Your task to perform on an android device: change your default location settings in chrome Image 0: 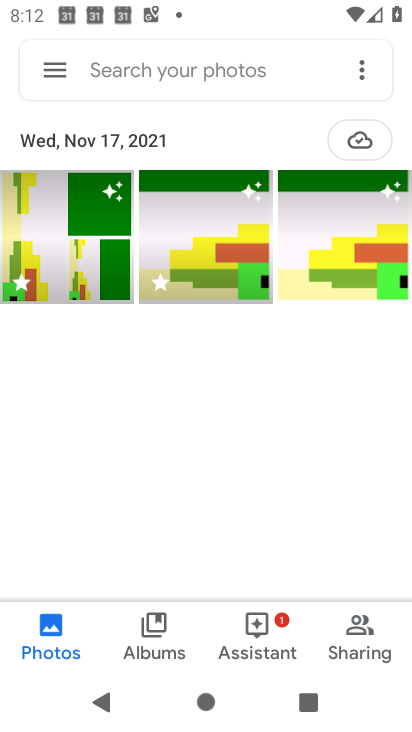
Step 0: press home button
Your task to perform on an android device: change your default location settings in chrome Image 1: 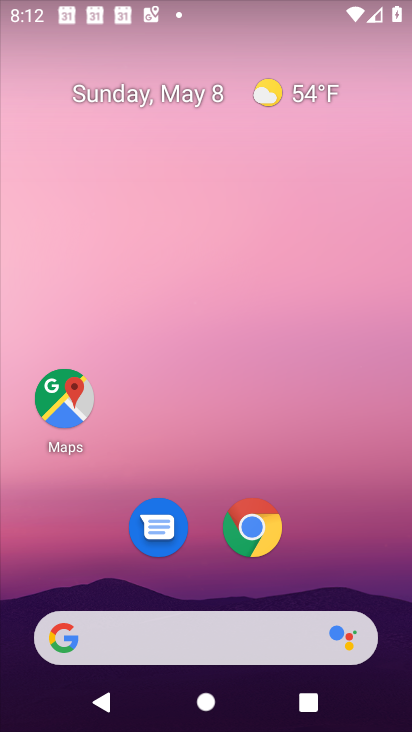
Step 1: click (243, 521)
Your task to perform on an android device: change your default location settings in chrome Image 2: 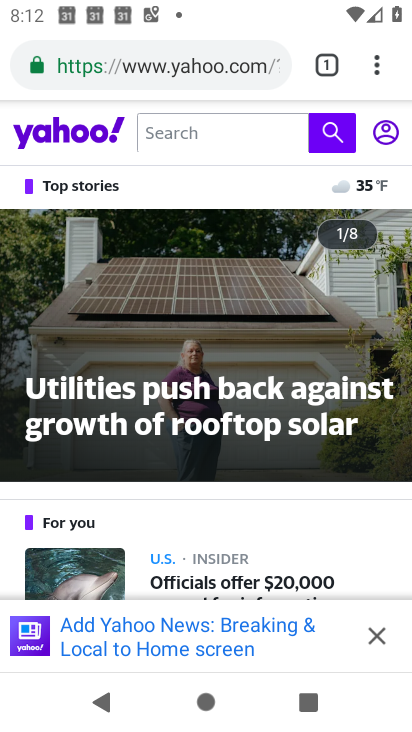
Step 2: click (369, 63)
Your task to perform on an android device: change your default location settings in chrome Image 3: 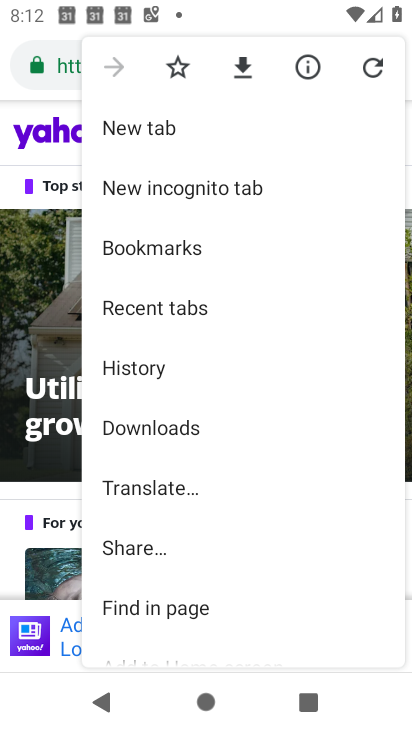
Step 3: drag from (247, 589) to (197, 328)
Your task to perform on an android device: change your default location settings in chrome Image 4: 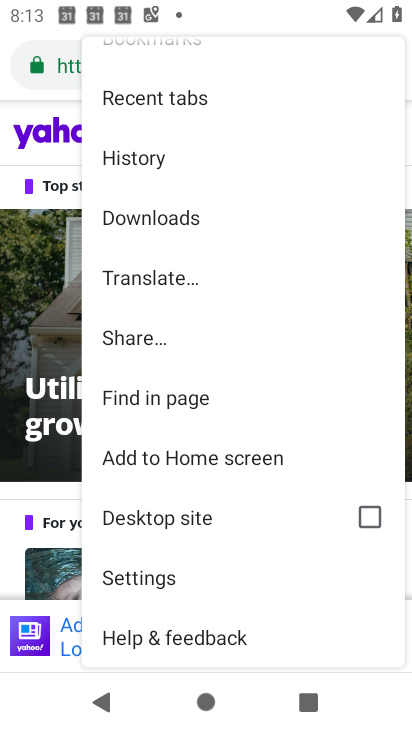
Step 4: click (198, 575)
Your task to perform on an android device: change your default location settings in chrome Image 5: 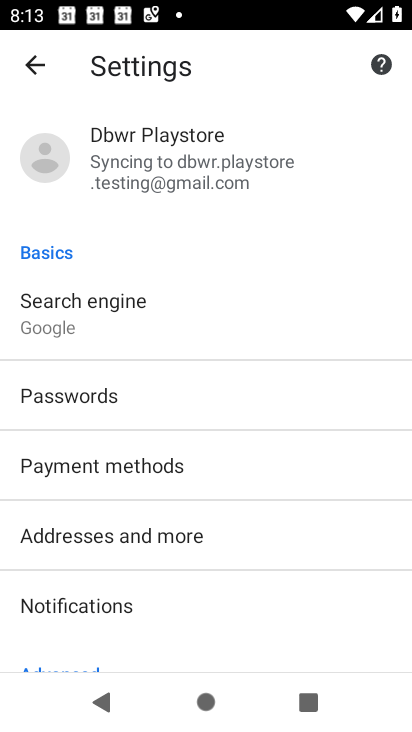
Step 5: drag from (191, 626) to (193, 405)
Your task to perform on an android device: change your default location settings in chrome Image 6: 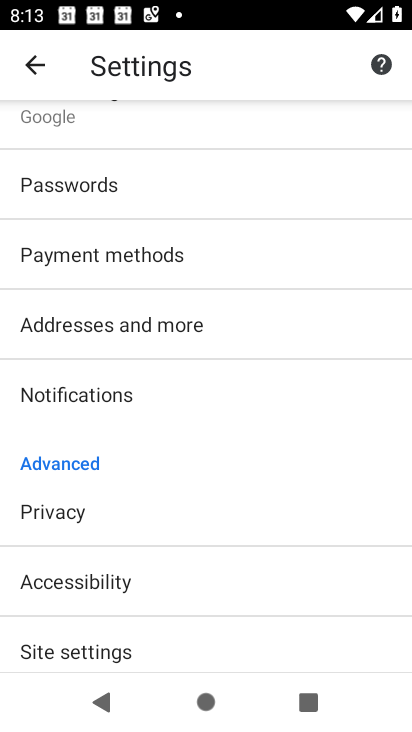
Step 6: click (138, 642)
Your task to perform on an android device: change your default location settings in chrome Image 7: 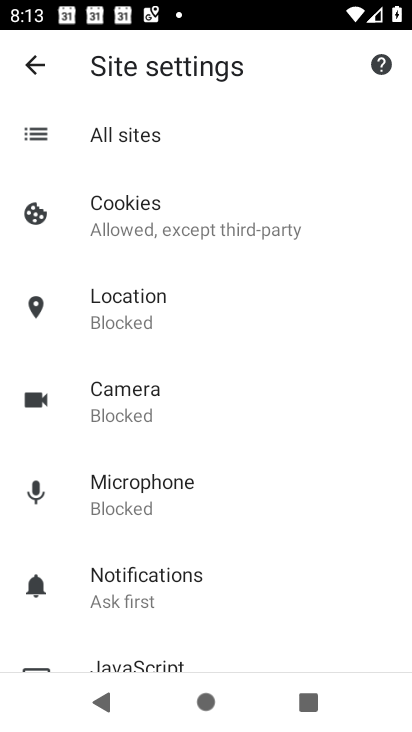
Step 7: click (174, 315)
Your task to perform on an android device: change your default location settings in chrome Image 8: 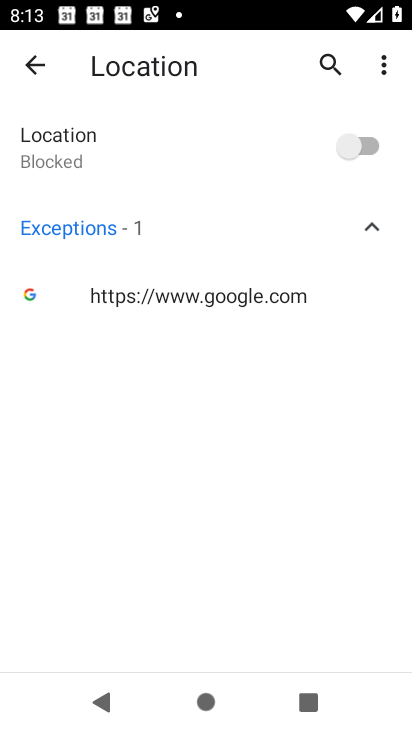
Step 8: click (364, 137)
Your task to perform on an android device: change your default location settings in chrome Image 9: 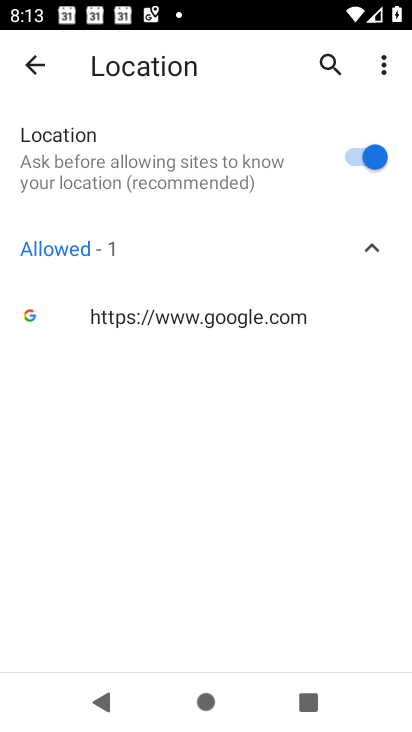
Step 9: task complete